Your task to perform on an android device: Set the phone to "Do not disturb". Image 0: 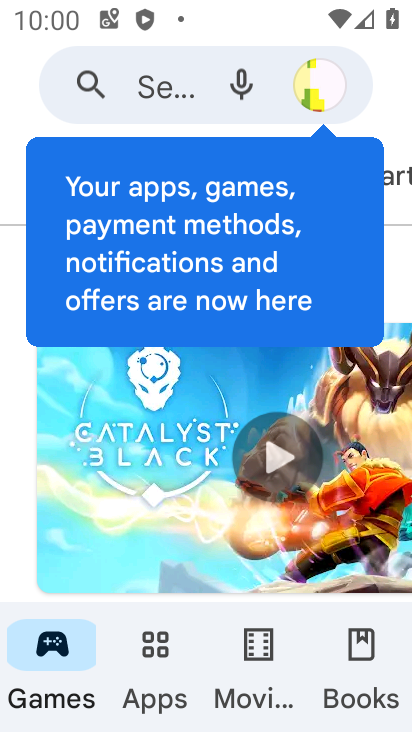
Step 0: press home button
Your task to perform on an android device: Set the phone to "Do not disturb". Image 1: 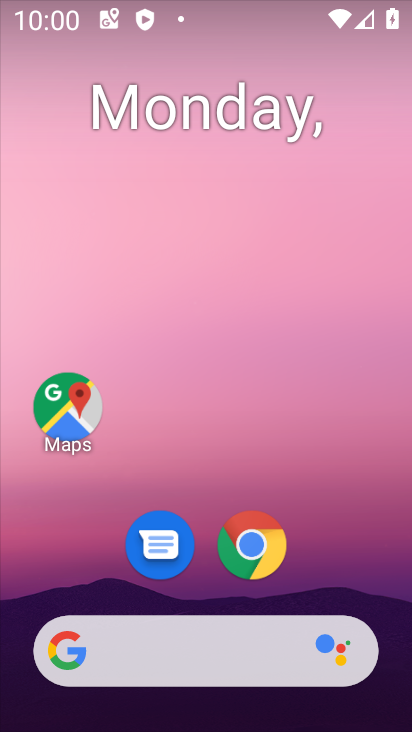
Step 1: drag from (224, 13) to (206, 377)
Your task to perform on an android device: Set the phone to "Do not disturb". Image 2: 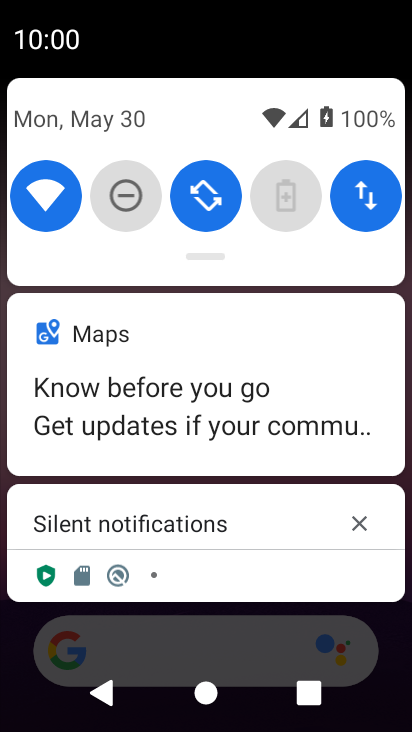
Step 2: click (145, 195)
Your task to perform on an android device: Set the phone to "Do not disturb". Image 3: 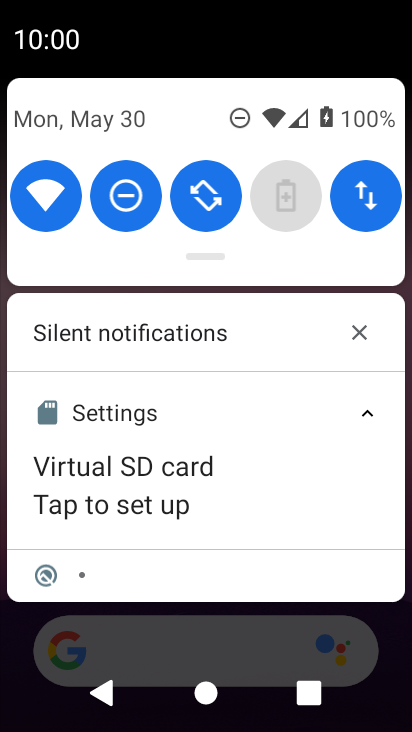
Step 3: task complete